Your task to perform on an android device: see sites visited before in the chrome app Image 0: 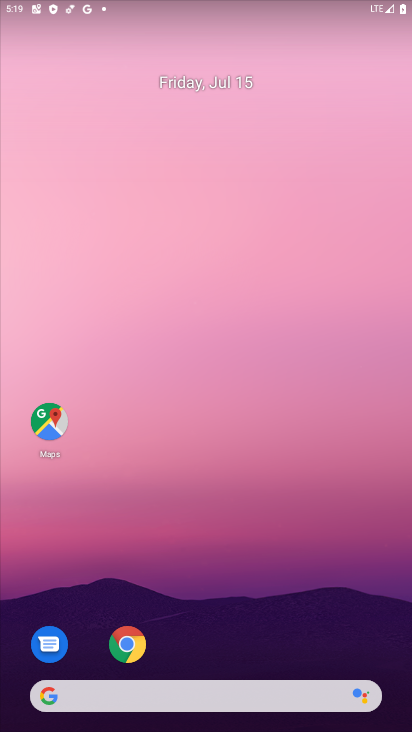
Step 0: click (135, 637)
Your task to perform on an android device: see sites visited before in the chrome app Image 1: 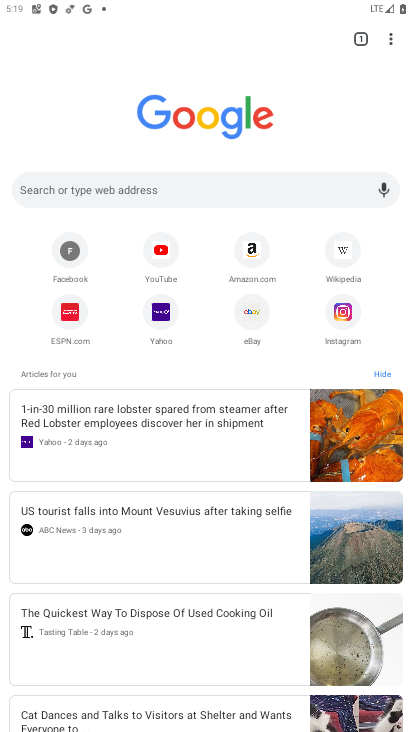
Step 1: click (389, 37)
Your task to perform on an android device: see sites visited before in the chrome app Image 2: 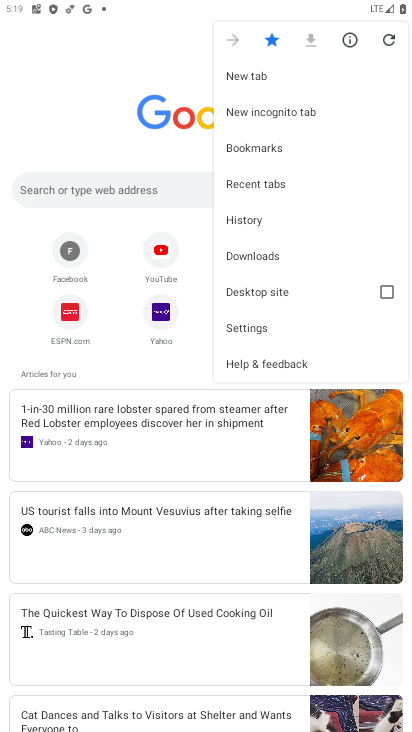
Step 2: click (260, 220)
Your task to perform on an android device: see sites visited before in the chrome app Image 3: 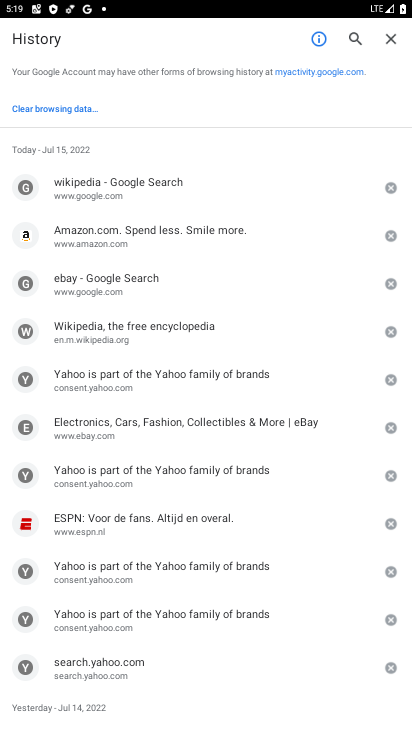
Step 3: task complete